Your task to perform on an android device: turn off data saver in the chrome app Image 0: 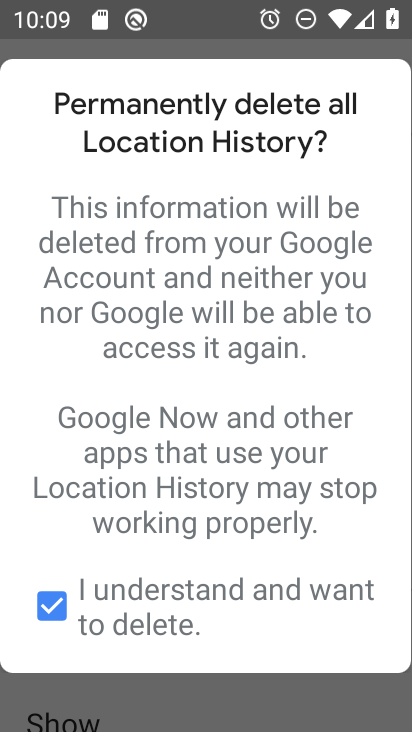
Step 0: press home button
Your task to perform on an android device: turn off data saver in the chrome app Image 1: 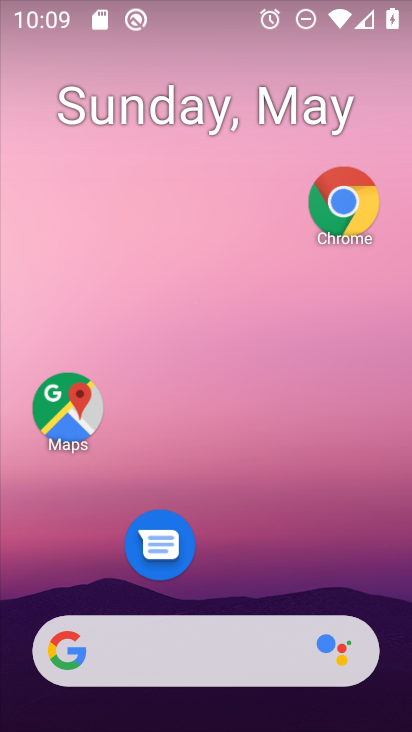
Step 1: click (340, 204)
Your task to perform on an android device: turn off data saver in the chrome app Image 2: 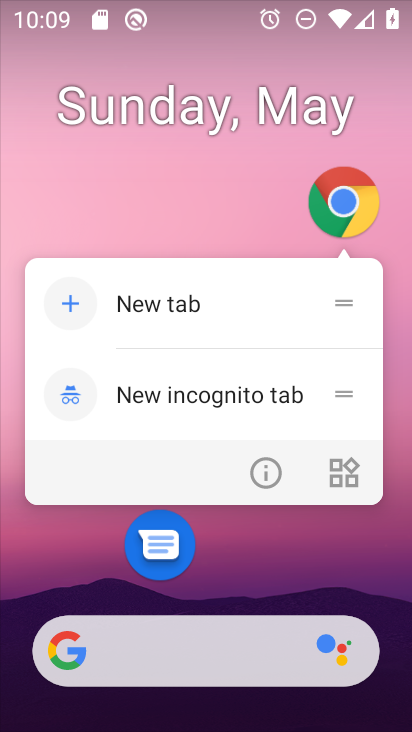
Step 2: click (340, 204)
Your task to perform on an android device: turn off data saver in the chrome app Image 3: 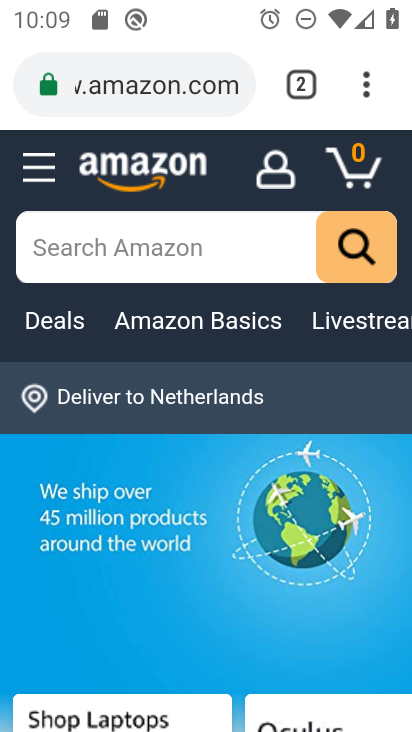
Step 3: click (369, 91)
Your task to perform on an android device: turn off data saver in the chrome app Image 4: 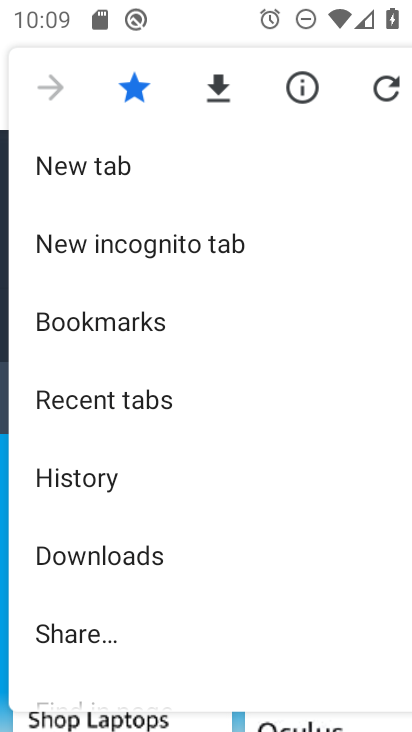
Step 4: drag from (256, 617) to (263, 301)
Your task to perform on an android device: turn off data saver in the chrome app Image 5: 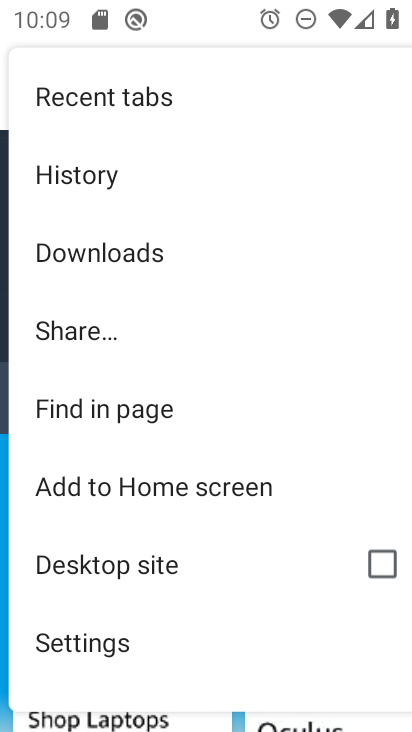
Step 5: click (148, 643)
Your task to perform on an android device: turn off data saver in the chrome app Image 6: 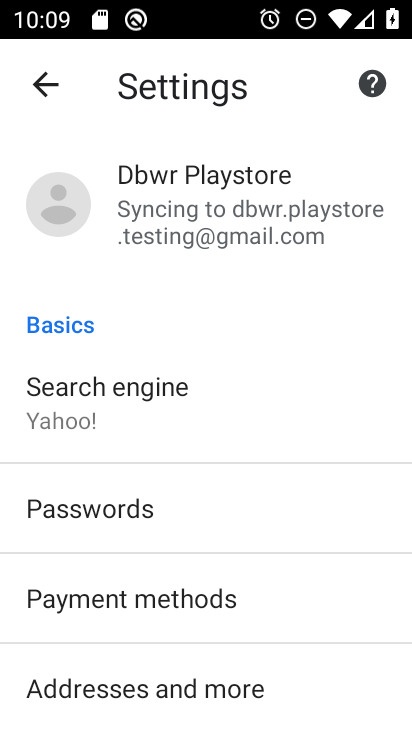
Step 6: drag from (142, 640) to (182, 315)
Your task to perform on an android device: turn off data saver in the chrome app Image 7: 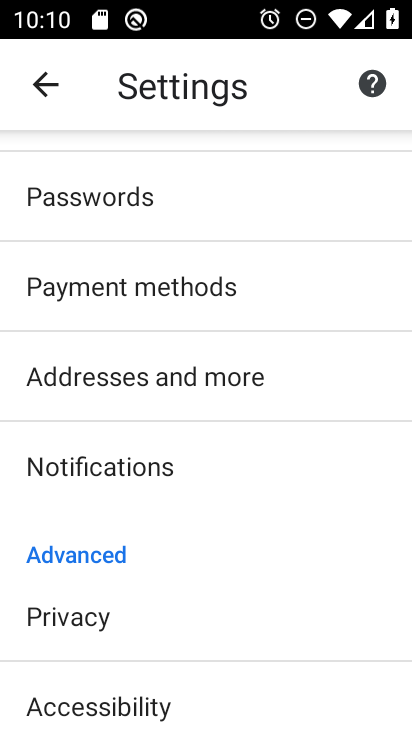
Step 7: drag from (92, 606) to (164, 261)
Your task to perform on an android device: turn off data saver in the chrome app Image 8: 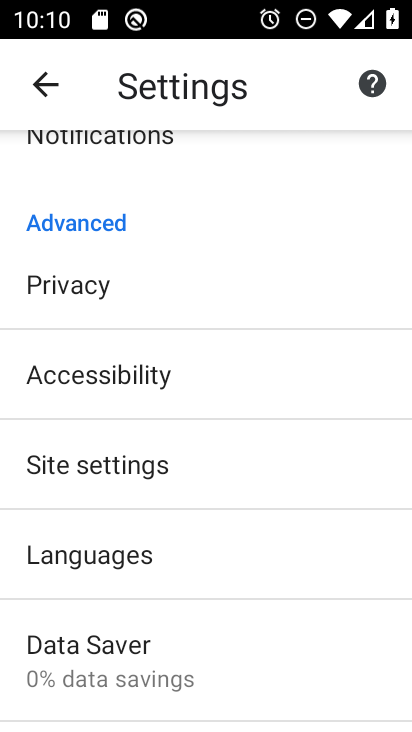
Step 8: click (118, 617)
Your task to perform on an android device: turn off data saver in the chrome app Image 9: 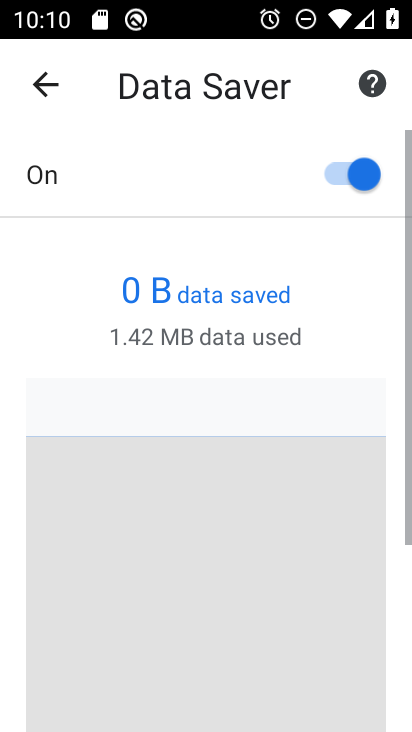
Step 9: click (334, 186)
Your task to perform on an android device: turn off data saver in the chrome app Image 10: 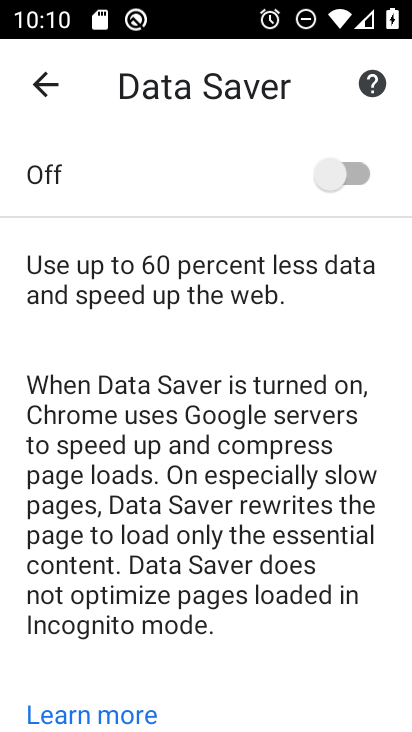
Step 10: task complete